Your task to perform on an android device: Show me popular games on the Play Store Image 0: 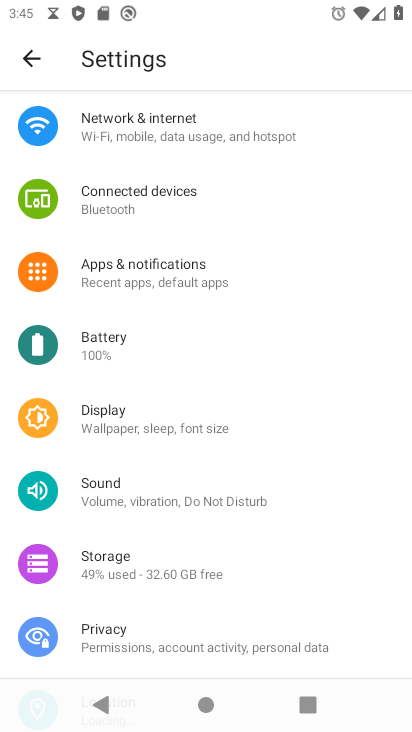
Step 0: press back button
Your task to perform on an android device: Show me popular games on the Play Store Image 1: 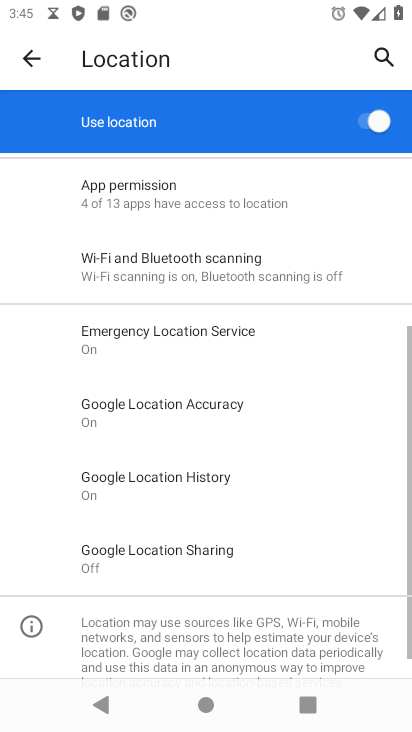
Step 1: click (35, 62)
Your task to perform on an android device: Show me popular games on the Play Store Image 2: 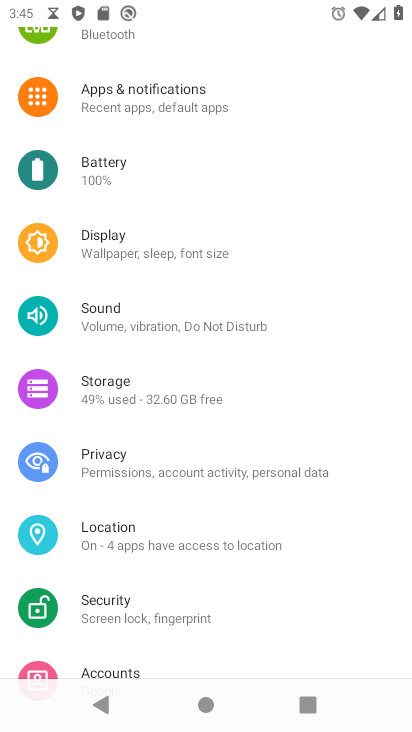
Step 2: press back button
Your task to perform on an android device: Show me popular games on the Play Store Image 3: 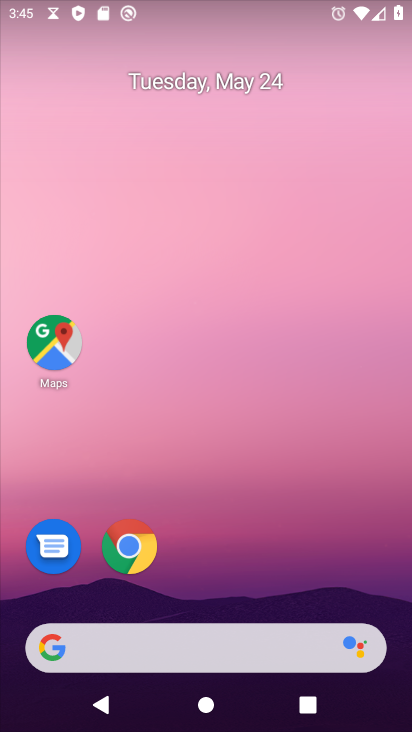
Step 3: drag from (255, 642) to (221, 183)
Your task to perform on an android device: Show me popular games on the Play Store Image 4: 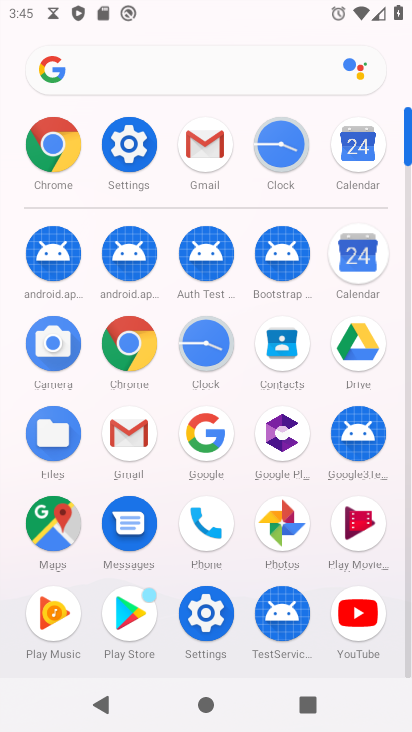
Step 4: click (130, 601)
Your task to perform on an android device: Show me popular games on the Play Store Image 5: 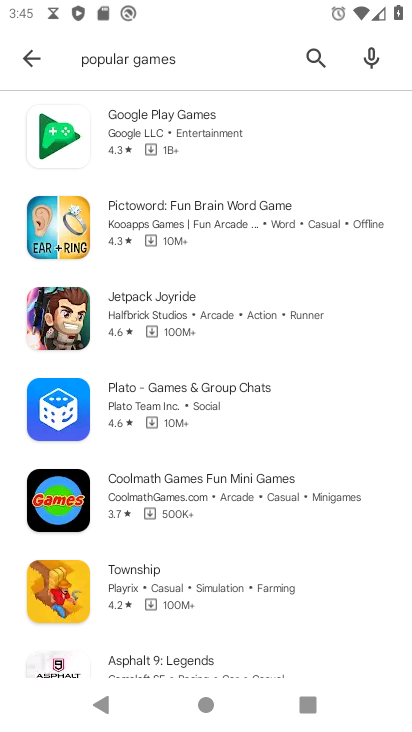
Step 5: task complete